Your task to perform on an android device: Go to CNN.com Image 0: 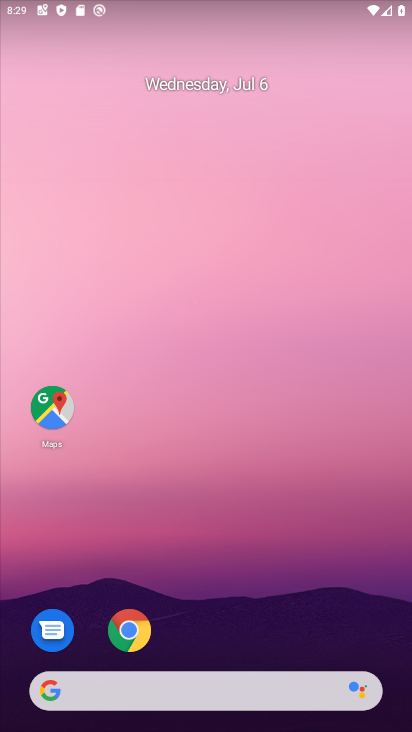
Step 0: click (118, 621)
Your task to perform on an android device: Go to CNN.com Image 1: 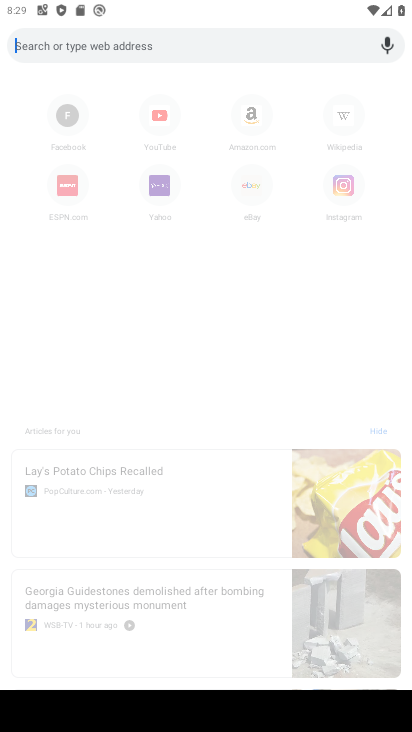
Step 1: click (194, 45)
Your task to perform on an android device: Go to CNN.com Image 2: 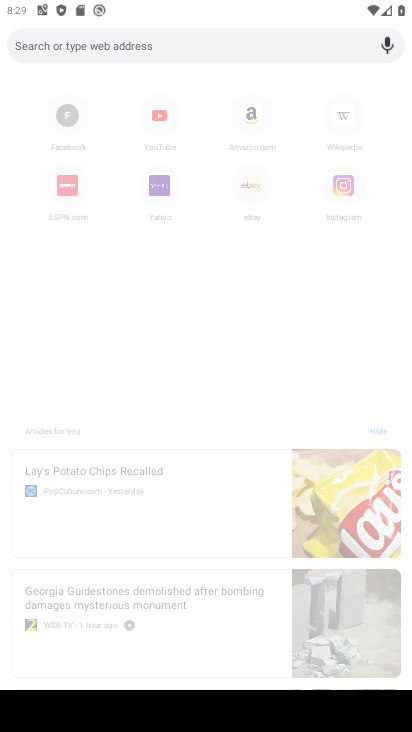
Step 2: type "CNN.com"
Your task to perform on an android device: Go to CNN.com Image 3: 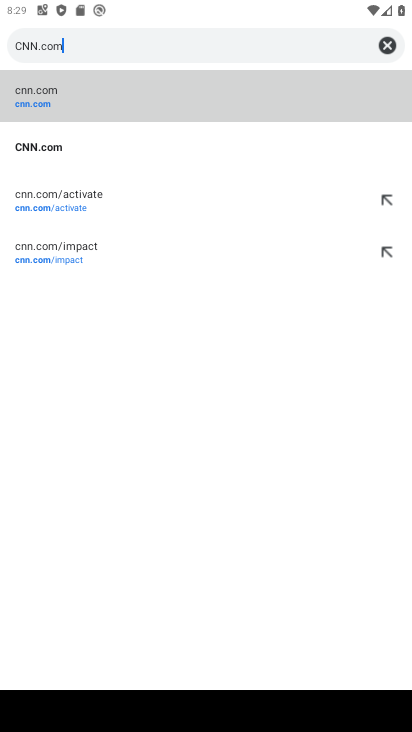
Step 3: click (50, 150)
Your task to perform on an android device: Go to CNN.com Image 4: 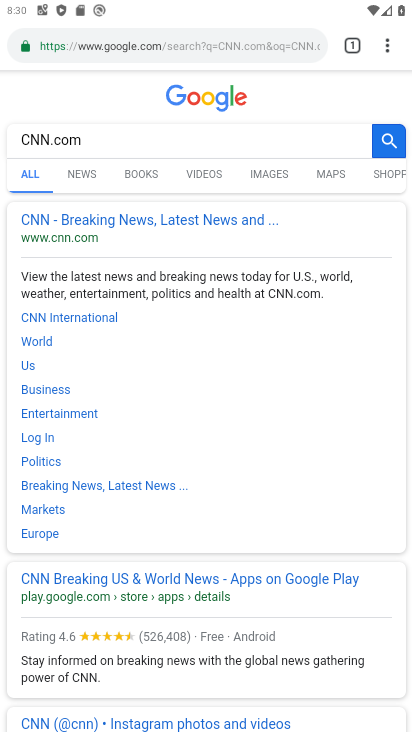
Step 4: task complete